Your task to perform on an android device: Go to Google maps Image 0: 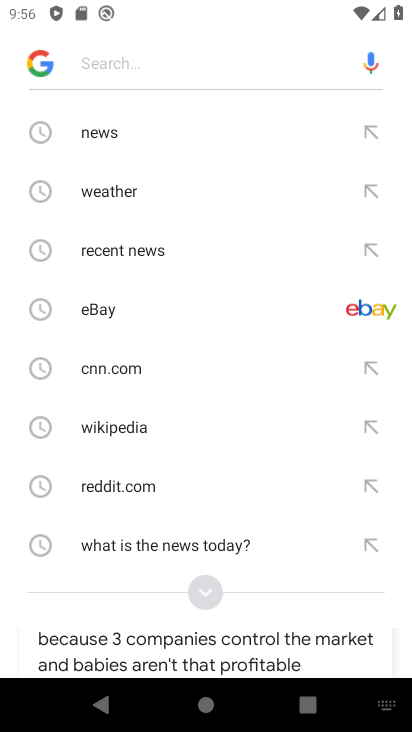
Step 0: press home button
Your task to perform on an android device: Go to Google maps Image 1: 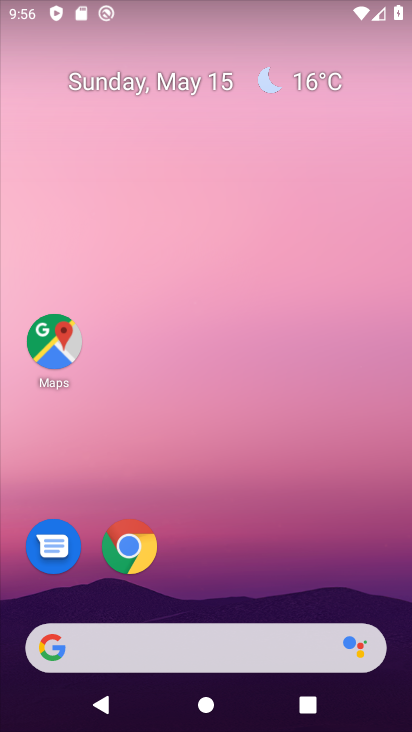
Step 1: drag from (261, 660) to (247, 194)
Your task to perform on an android device: Go to Google maps Image 2: 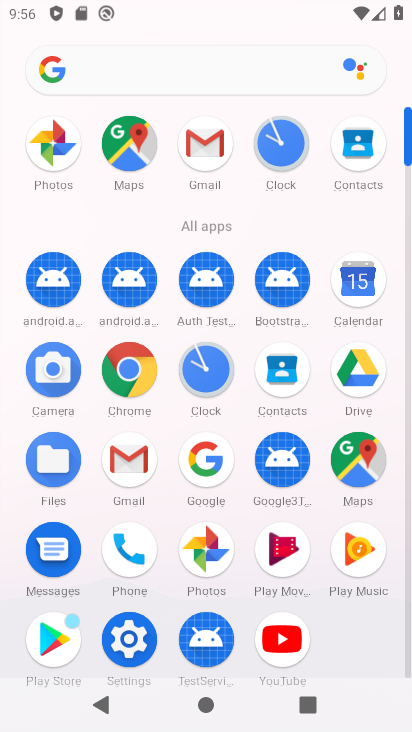
Step 2: click (117, 158)
Your task to perform on an android device: Go to Google maps Image 3: 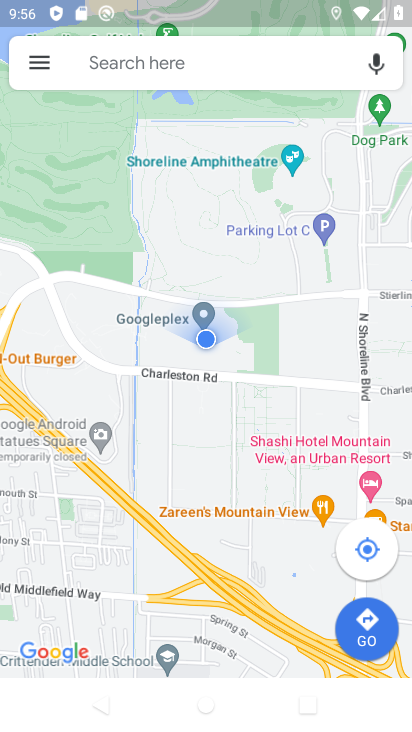
Step 3: task complete